Your task to perform on an android device: toggle data saver in the chrome app Image 0: 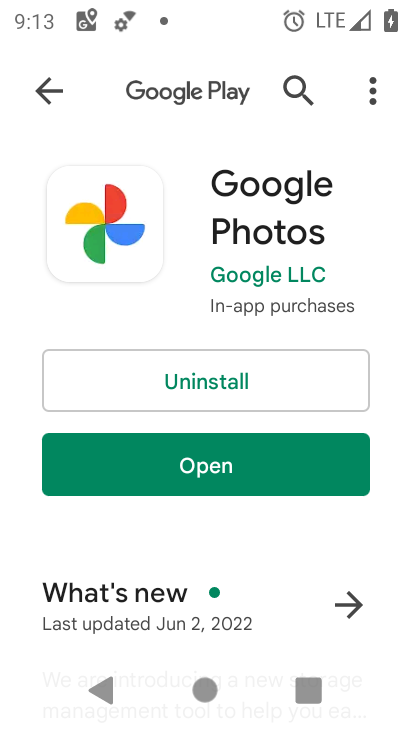
Step 0: press home button
Your task to perform on an android device: toggle data saver in the chrome app Image 1: 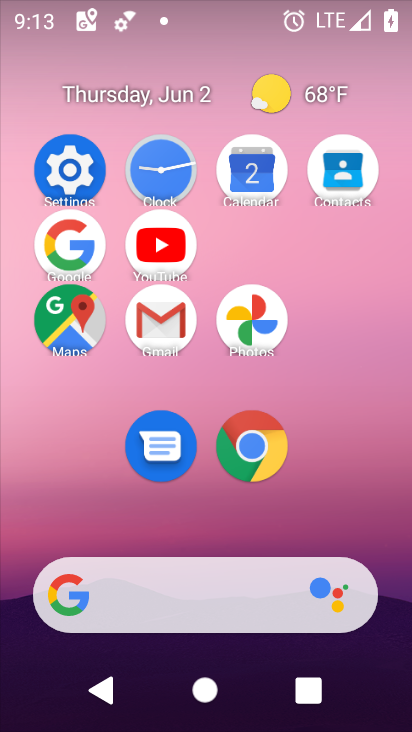
Step 1: click (231, 469)
Your task to perform on an android device: toggle data saver in the chrome app Image 2: 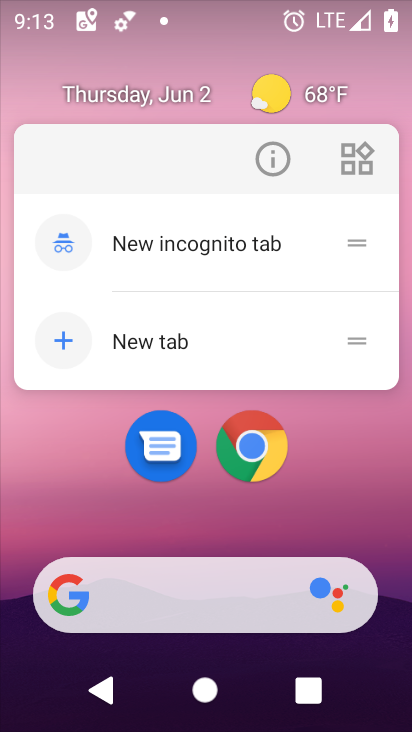
Step 2: click (248, 435)
Your task to perform on an android device: toggle data saver in the chrome app Image 3: 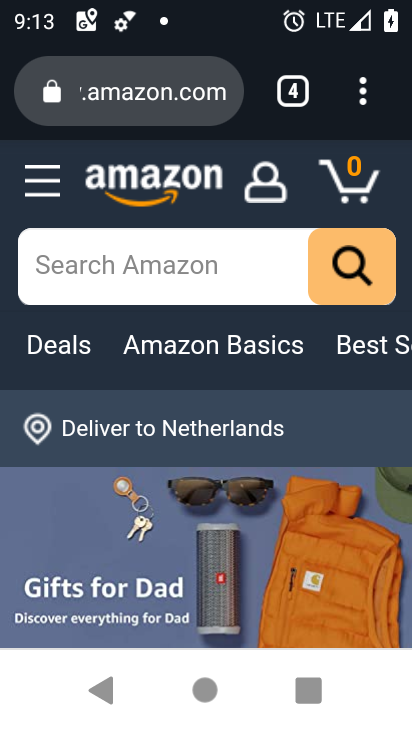
Step 3: click (372, 88)
Your task to perform on an android device: toggle data saver in the chrome app Image 4: 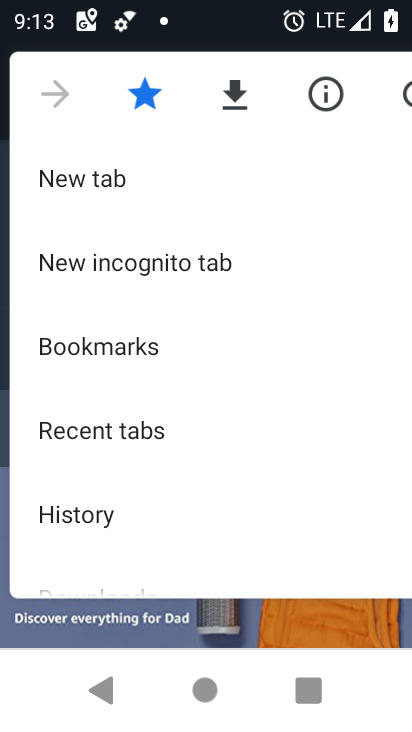
Step 4: drag from (151, 468) to (173, 136)
Your task to perform on an android device: toggle data saver in the chrome app Image 5: 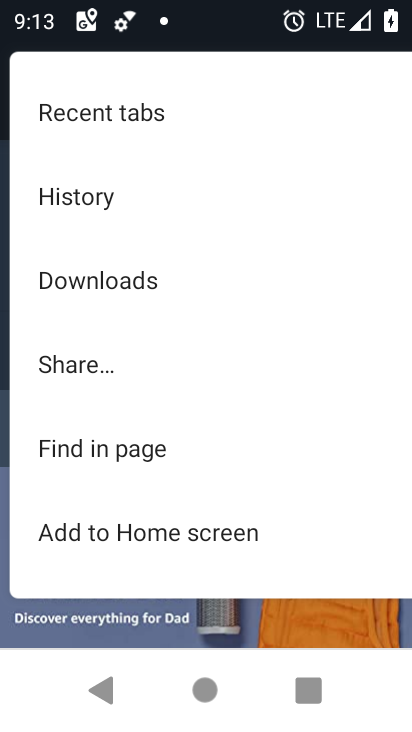
Step 5: drag from (119, 417) to (140, 150)
Your task to perform on an android device: toggle data saver in the chrome app Image 6: 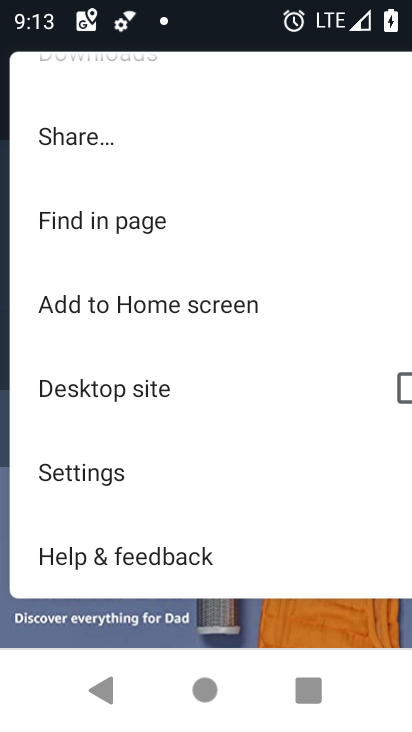
Step 6: click (164, 478)
Your task to perform on an android device: toggle data saver in the chrome app Image 7: 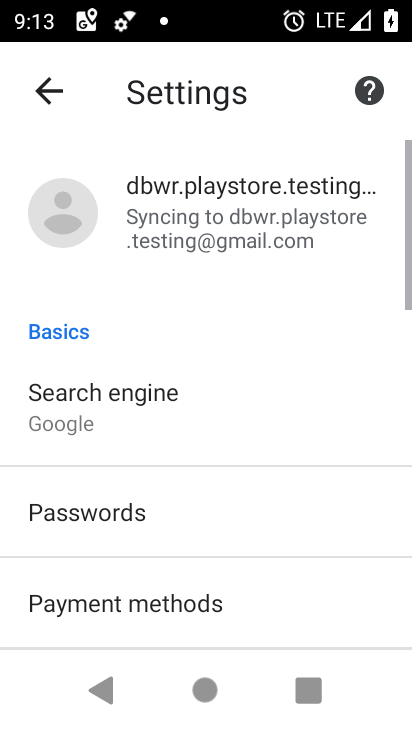
Step 7: drag from (183, 542) to (216, 170)
Your task to perform on an android device: toggle data saver in the chrome app Image 8: 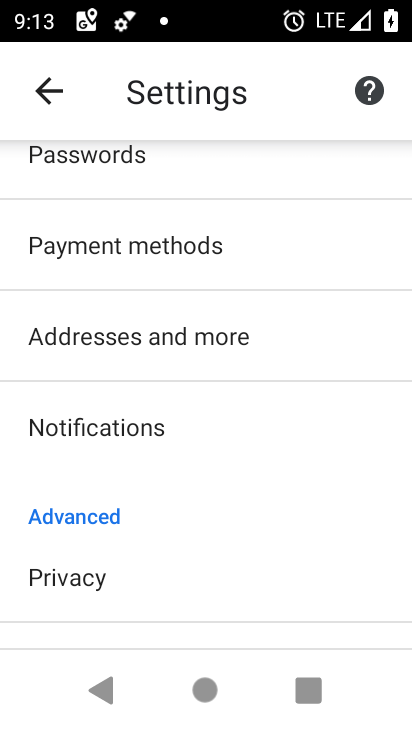
Step 8: drag from (182, 576) to (201, 188)
Your task to perform on an android device: toggle data saver in the chrome app Image 9: 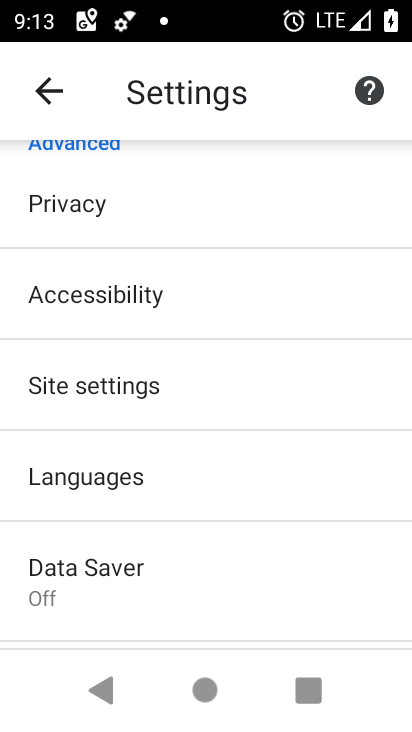
Step 9: drag from (146, 508) to (179, 207)
Your task to perform on an android device: toggle data saver in the chrome app Image 10: 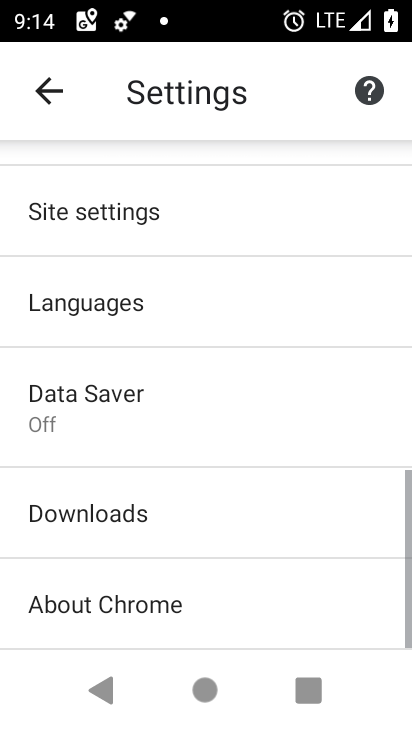
Step 10: click (178, 449)
Your task to perform on an android device: toggle data saver in the chrome app Image 11: 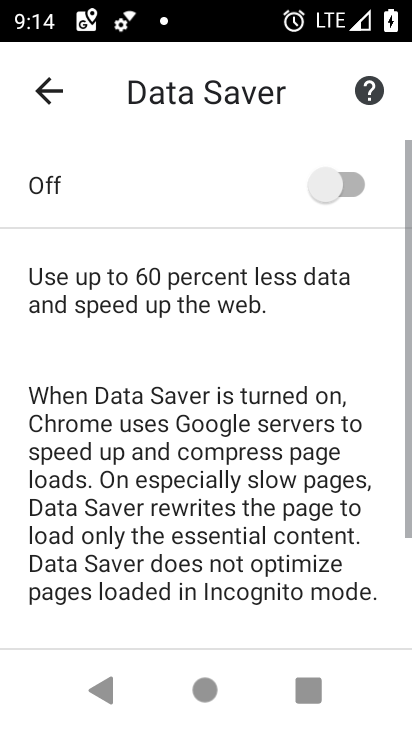
Step 11: click (338, 191)
Your task to perform on an android device: toggle data saver in the chrome app Image 12: 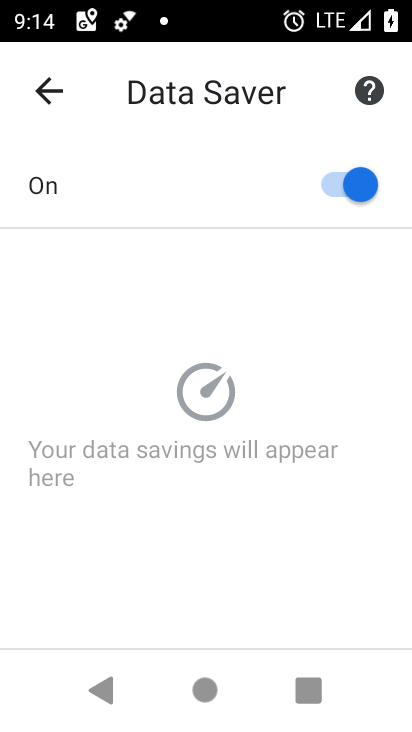
Step 12: task complete